Your task to perform on an android device: turn off priority inbox in the gmail app Image 0: 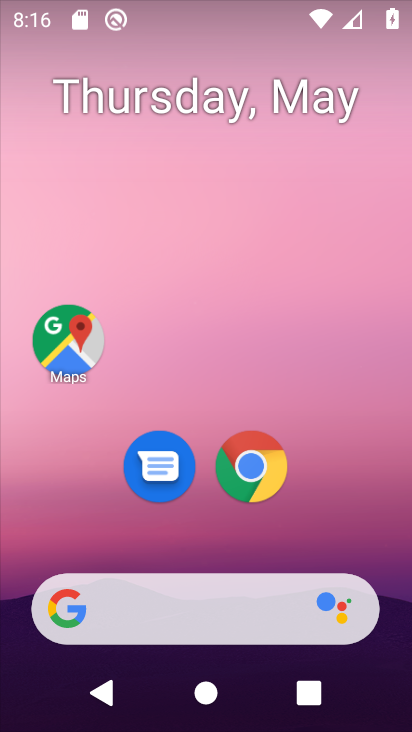
Step 0: drag from (361, 508) to (301, 41)
Your task to perform on an android device: turn off priority inbox in the gmail app Image 1: 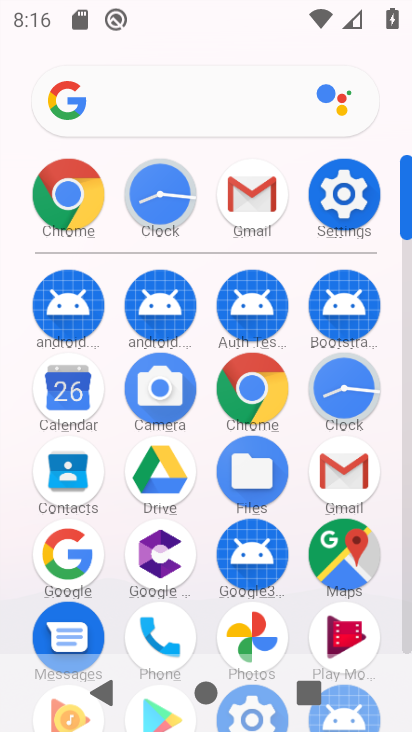
Step 1: click (267, 200)
Your task to perform on an android device: turn off priority inbox in the gmail app Image 2: 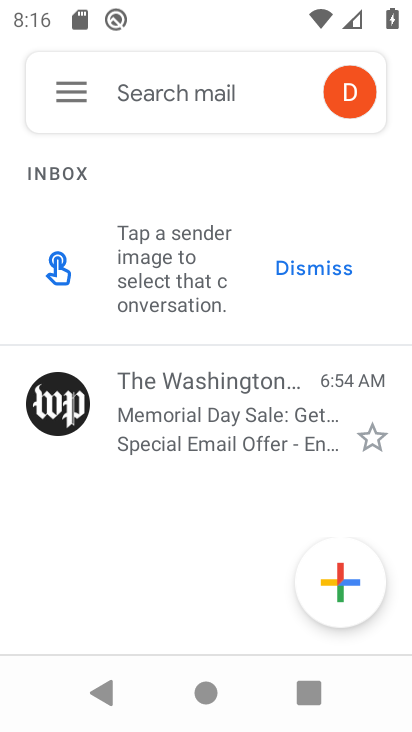
Step 2: click (77, 88)
Your task to perform on an android device: turn off priority inbox in the gmail app Image 3: 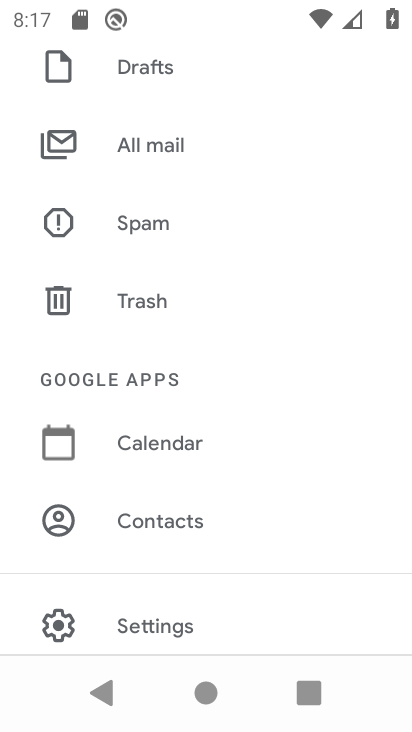
Step 3: click (197, 592)
Your task to perform on an android device: turn off priority inbox in the gmail app Image 4: 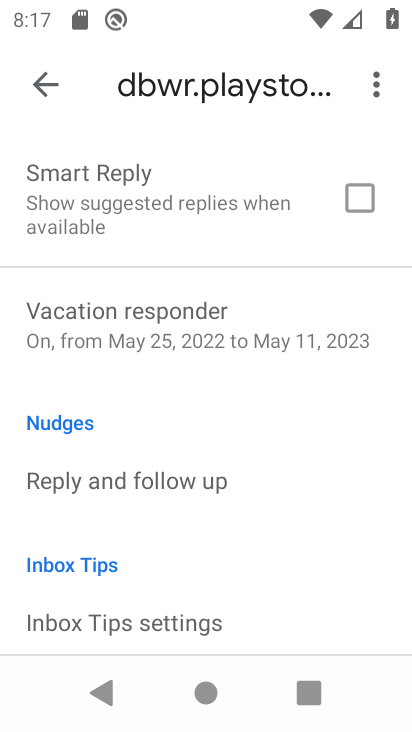
Step 4: drag from (211, 269) to (42, 615)
Your task to perform on an android device: turn off priority inbox in the gmail app Image 5: 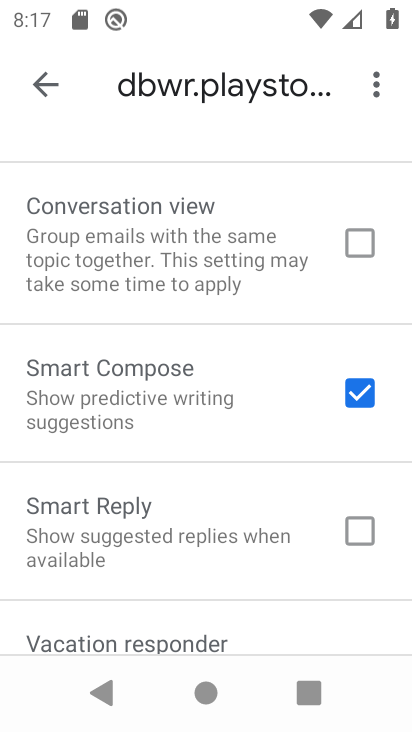
Step 5: click (144, 242)
Your task to perform on an android device: turn off priority inbox in the gmail app Image 6: 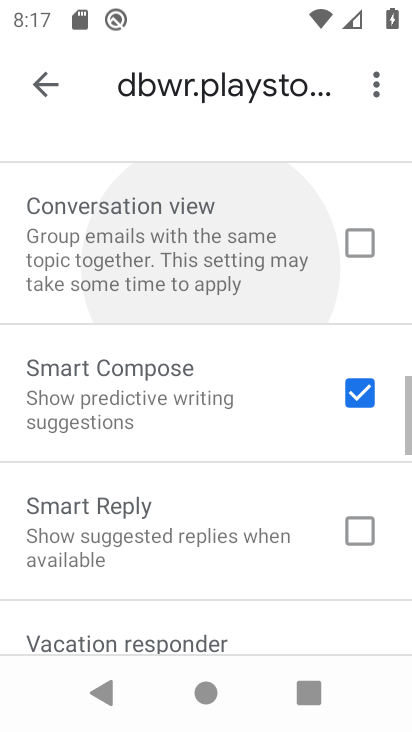
Step 6: task complete